Your task to perform on an android device: turn pop-ups off in chrome Image 0: 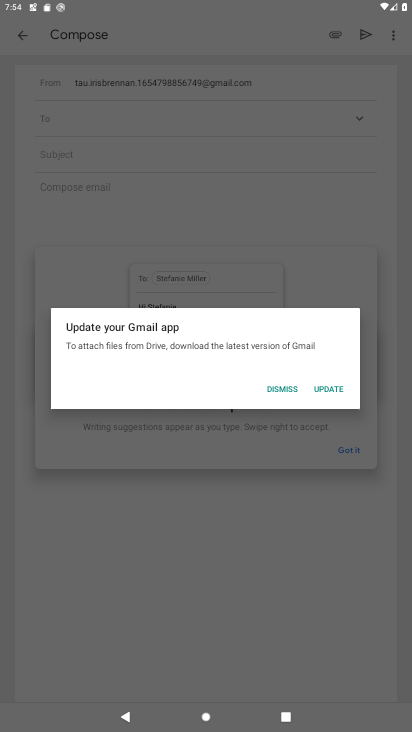
Step 0: press home button
Your task to perform on an android device: turn pop-ups off in chrome Image 1: 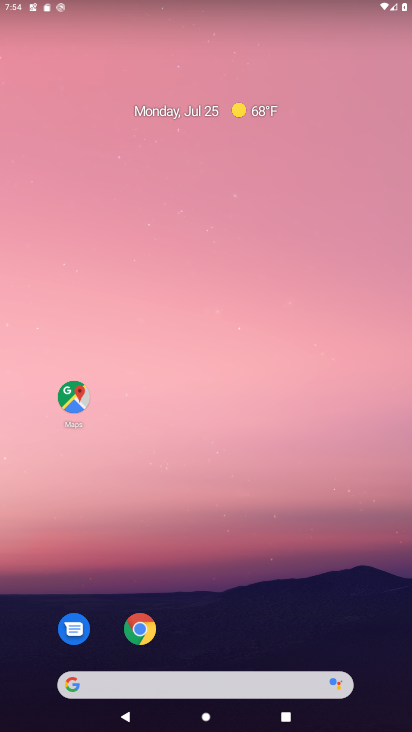
Step 1: drag from (252, 667) to (273, 149)
Your task to perform on an android device: turn pop-ups off in chrome Image 2: 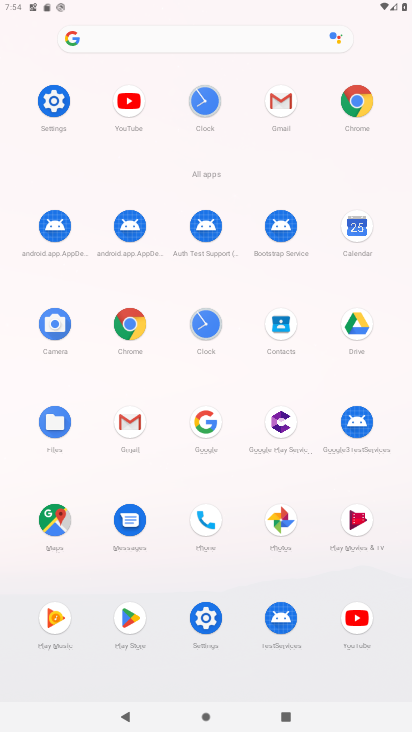
Step 2: click (359, 97)
Your task to perform on an android device: turn pop-ups off in chrome Image 3: 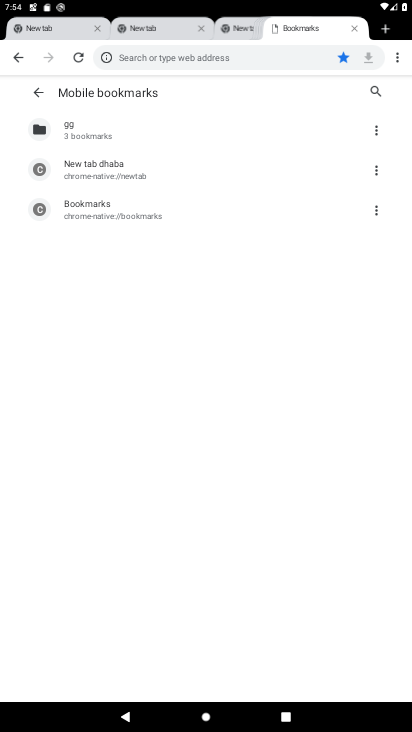
Step 3: click (403, 51)
Your task to perform on an android device: turn pop-ups off in chrome Image 4: 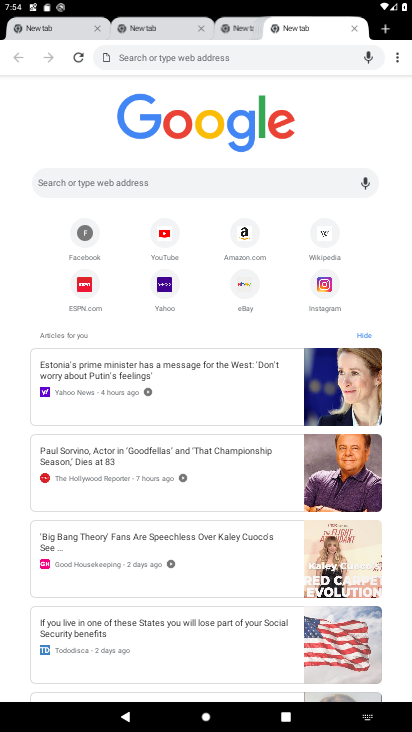
Step 4: click (407, 59)
Your task to perform on an android device: turn pop-ups off in chrome Image 5: 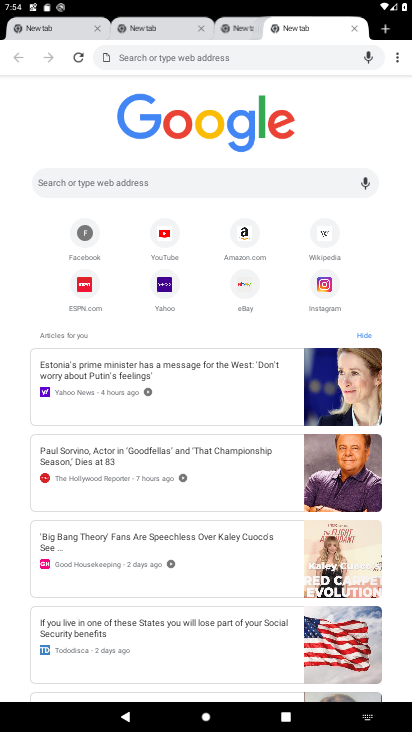
Step 5: click (407, 59)
Your task to perform on an android device: turn pop-ups off in chrome Image 6: 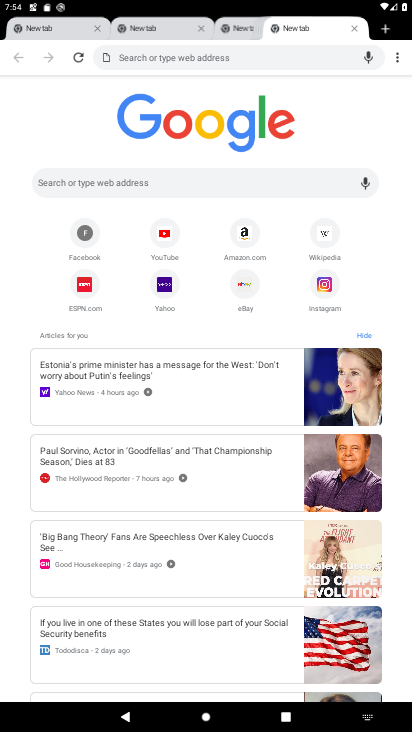
Step 6: click (407, 46)
Your task to perform on an android device: turn pop-ups off in chrome Image 7: 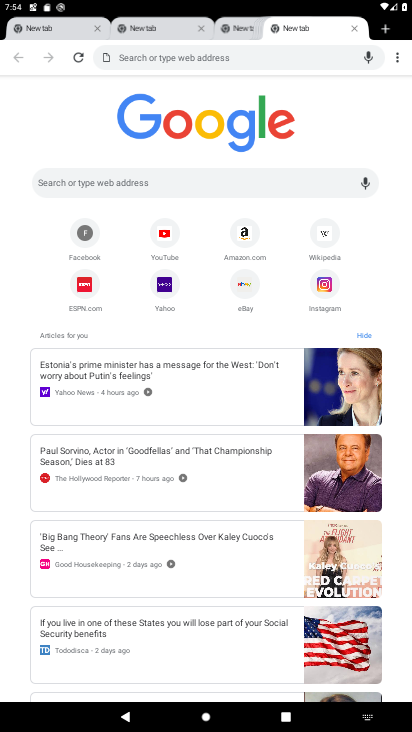
Step 7: click (402, 55)
Your task to perform on an android device: turn pop-ups off in chrome Image 8: 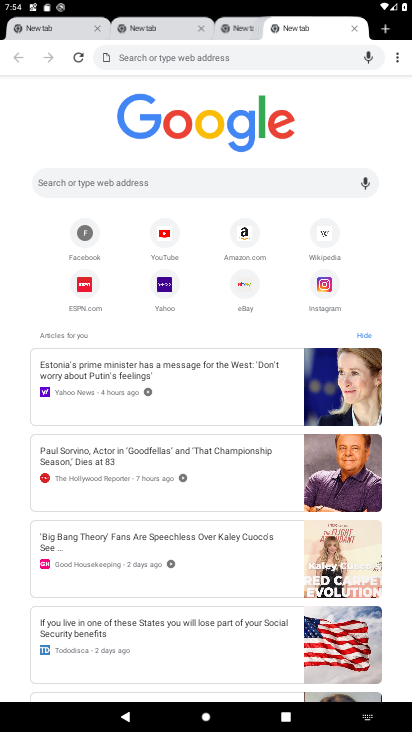
Step 8: click (392, 53)
Your task to perform on an android device: turn pop-ups off in chrome Image 9: 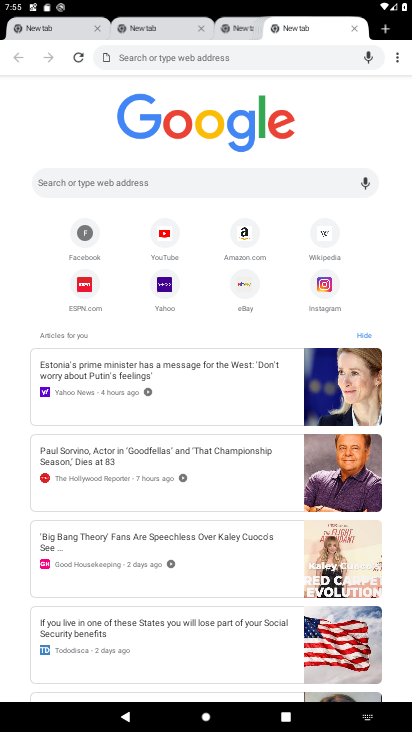
Step 9: click (402, 58)
Your task to perform on an android device: turn pop-ups off in chrome Image 10: 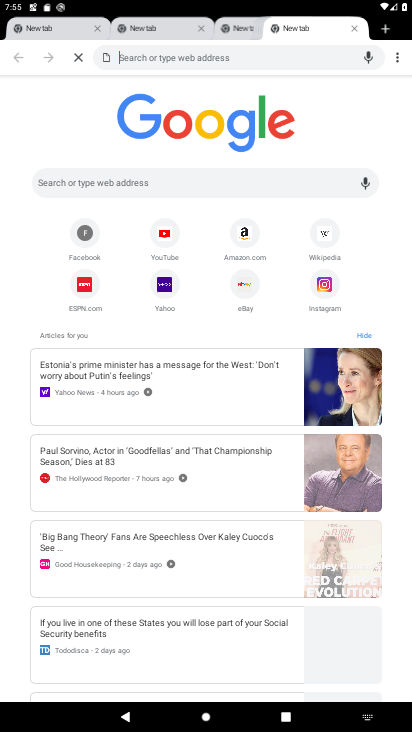
Step 10: click (402, 58)
Your task to perform on an android device: turn pop-ups off in chrome Image 11: 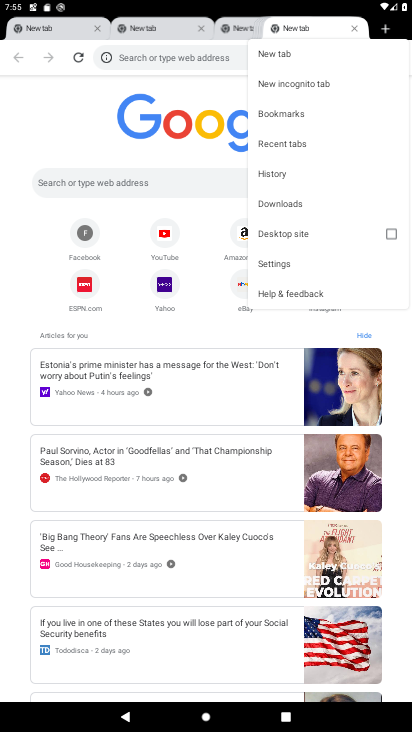
Step 11: click (295, 262)
Your task to perform on an android device: turn pop-ups off in chrome Image 12: 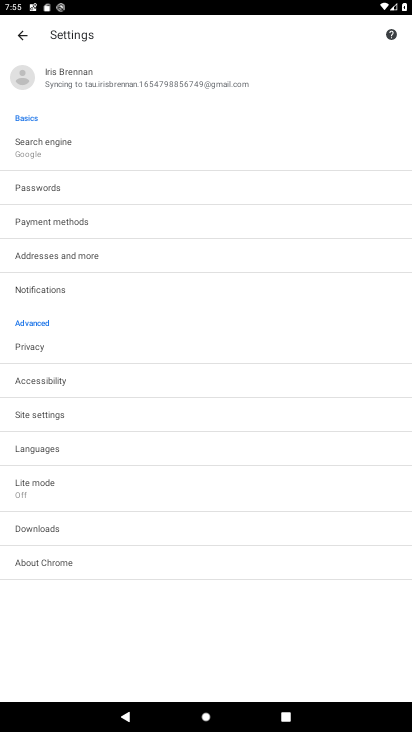
Step 12: click (69, 416)
Your task to perform on an android device: turn pop-ups off in chrome Image 13: 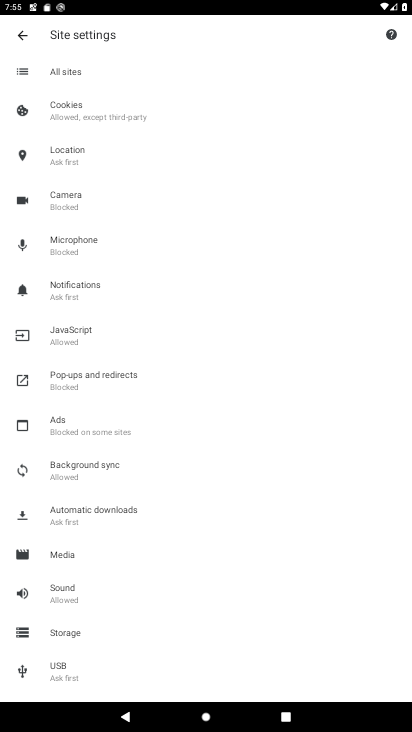
Step 13: click (116, 368)
Your task to perform on an android device: turn pop-ups off in chrome Image 14: 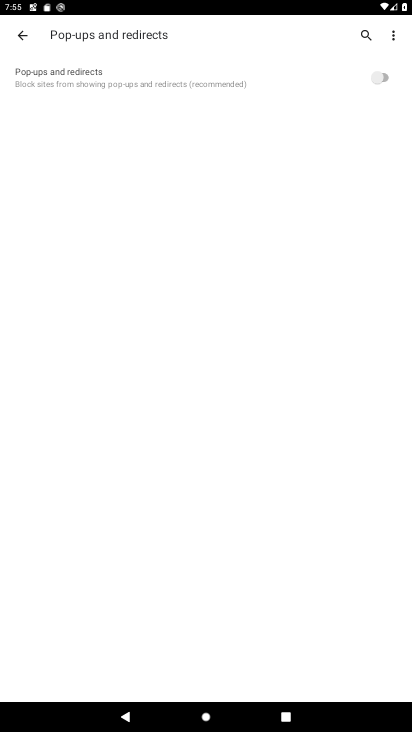
Step 14: click (381, 79)
Your task to perform on an android device: turn pop-ups off in chrome Image 15: 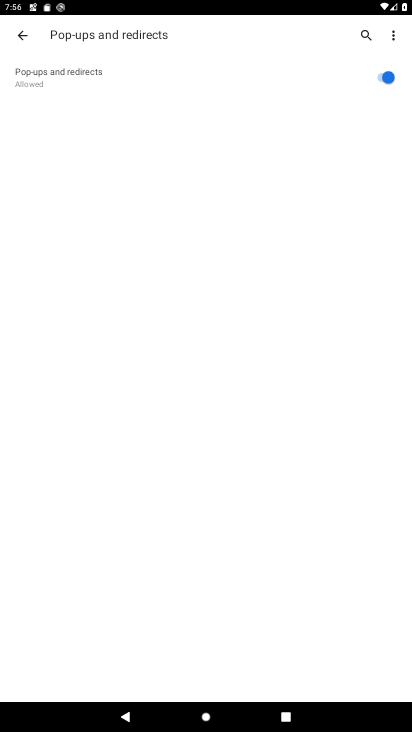
Step 15: task complete